Your task to perform on an android device: Open Google Image 0: 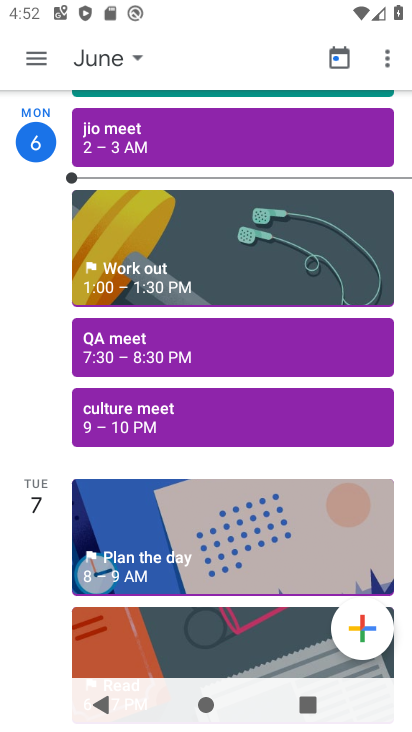
Step 0: press home button
Your task to perform on an android device: Open Google Image 1: 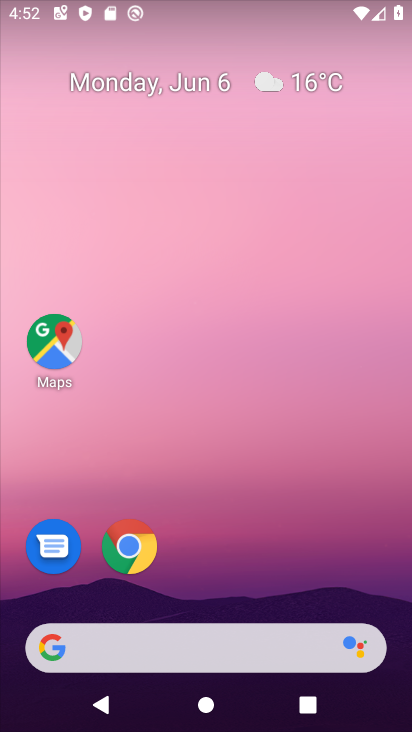
Step 1: drag from (159, 637) to (155, 207)
Your task to perform on an android device: Open Google Image 2: 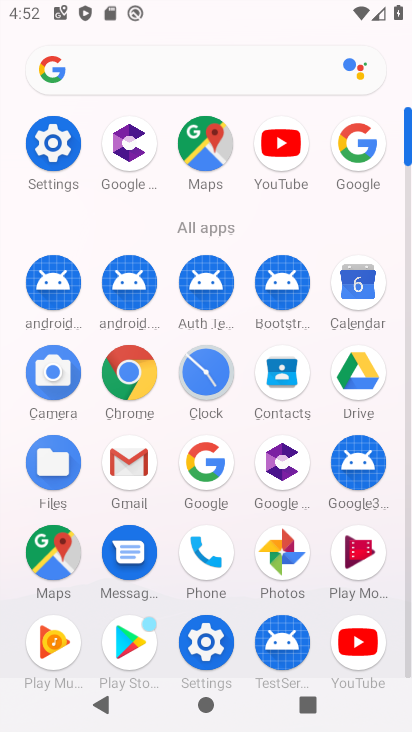
Step 2: click (194, 474)
Your task to perform on an android device: Open Google Image 3: 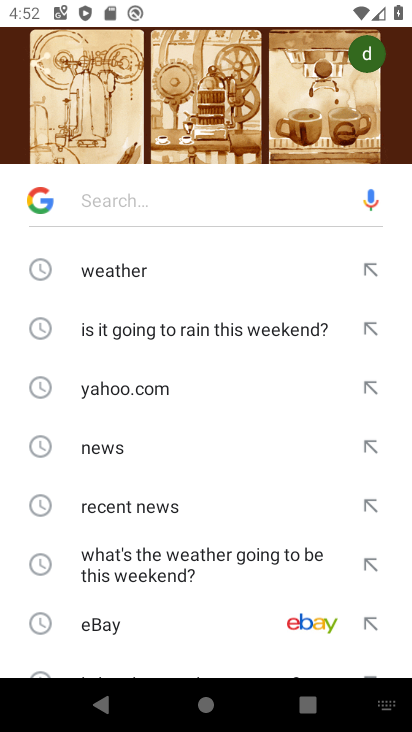
Step 3: task complete